Your task to perform on an android device: turn on location history Image 0: 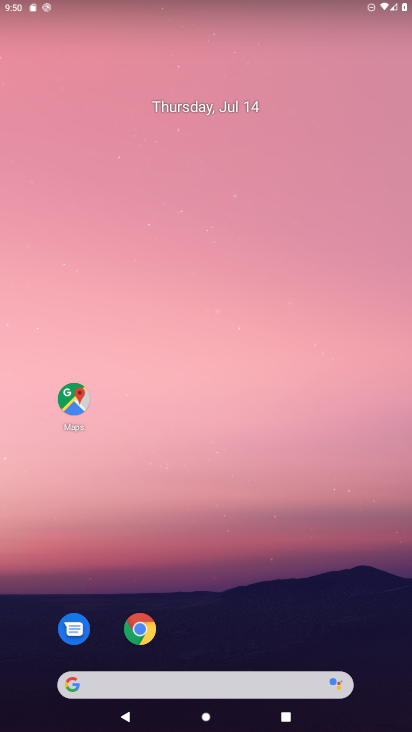
Step 0: drag from (278, 563) to (248, 131)
Your task to perform on an android device: turn on location history Image 1: 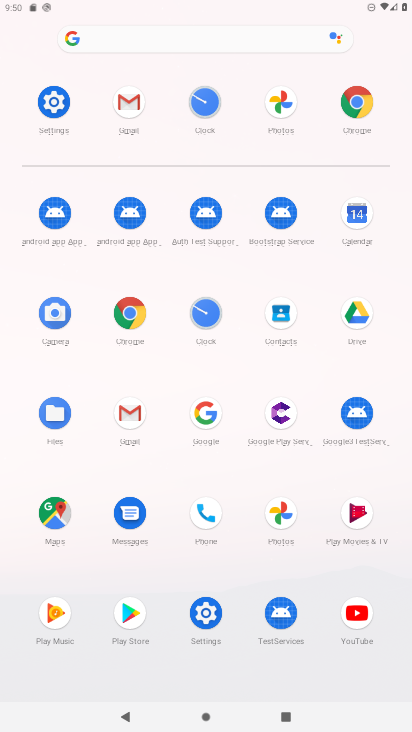
Step 1: click (209, 606)
Your task to perform on an android device: turn on location history Image 2: 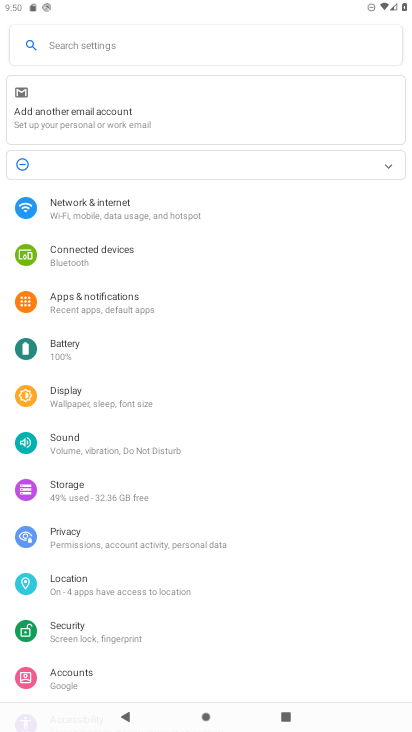
Step 2: drag from (256, 604) to (252, 264)
Your task to perform on an android device: turn on location history Image 3: 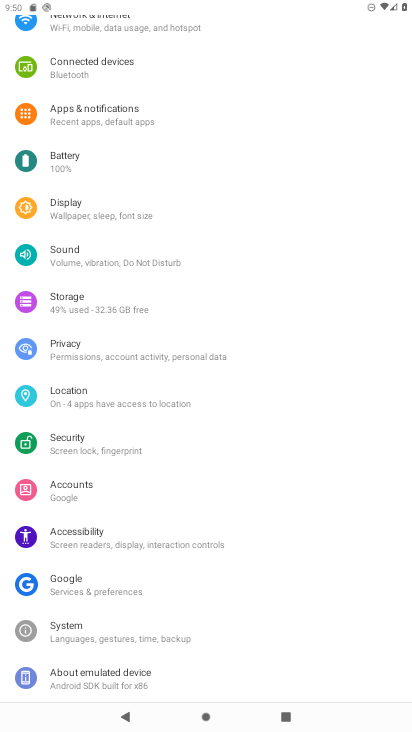
Step 3: press home button
Your task to perform on an android device: turn on location history Image 4: 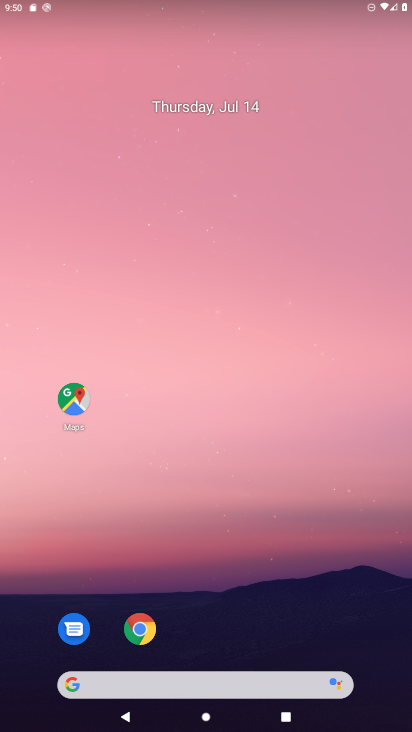
Step 4: drag from (278, 632) to (285, 68)
Your task to perform on an android device: turn on location history Image 5: 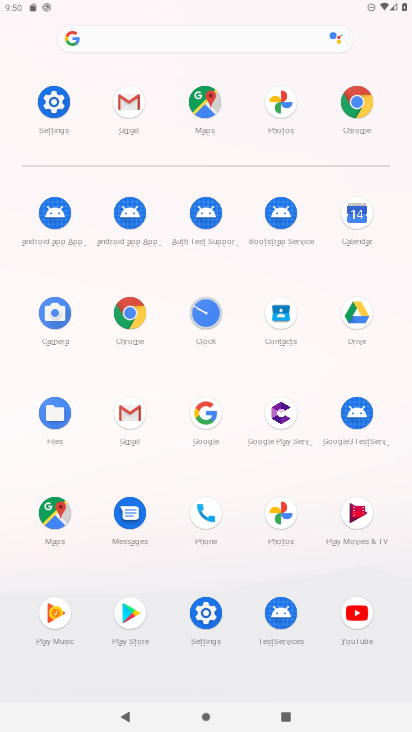
Step 5: click (61, 507)
Your task to perform on an android device: turn on location history Image 6: 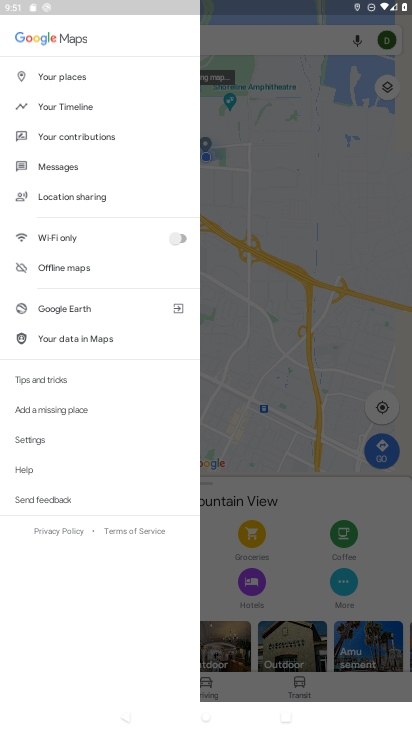
Step 6: click (50, 103)
Your task to perform on an android device: turn on location history Image 7: 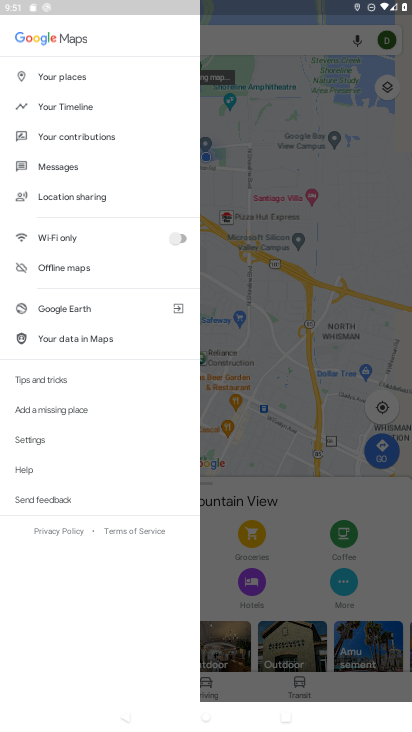
Step 7: click (86, 107)
Your task to perform on an android device: turn on location history Image 8: 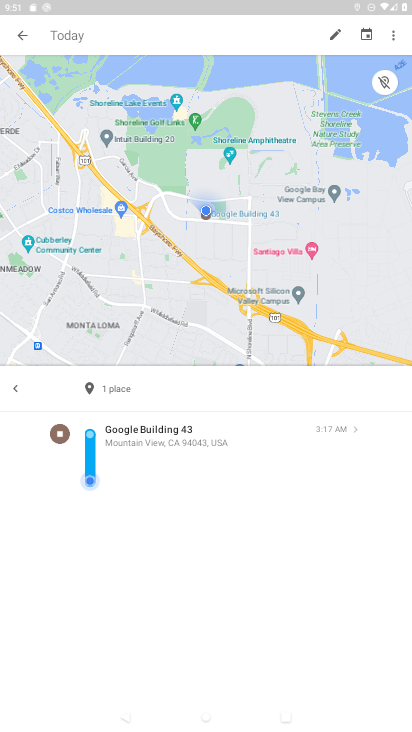
Step 8: click (390, 34)
Your task to perform on an android device: turn on location history Image 9: 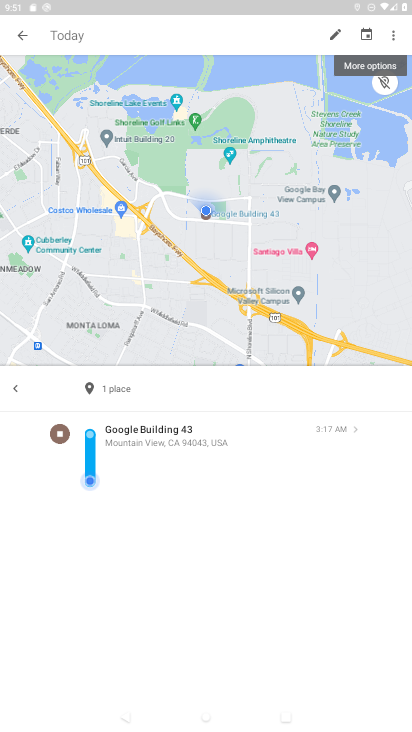
Step 9: click (390, 34)
Your task to perform on an android device: turn on location history Image 10: 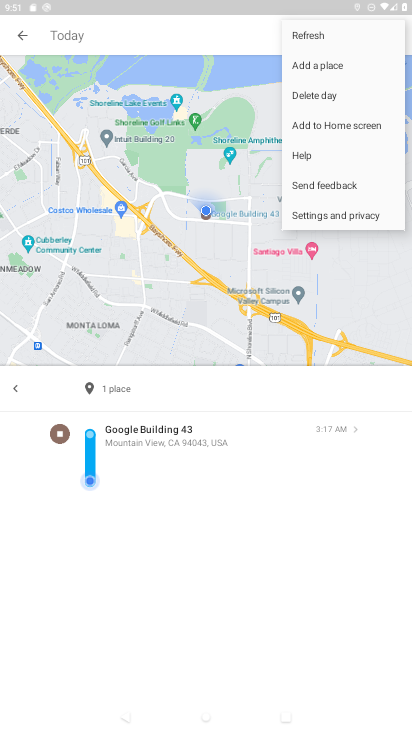
Step 10: click (324, 210)
Your task to perform on an android device: turn on location history Image 11: 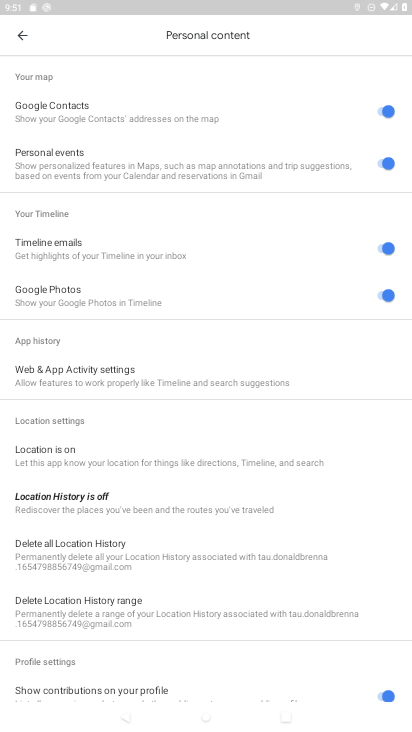
Step 11: click (97, 499)
Your task to perform on an android device: turn on location history Image 12: 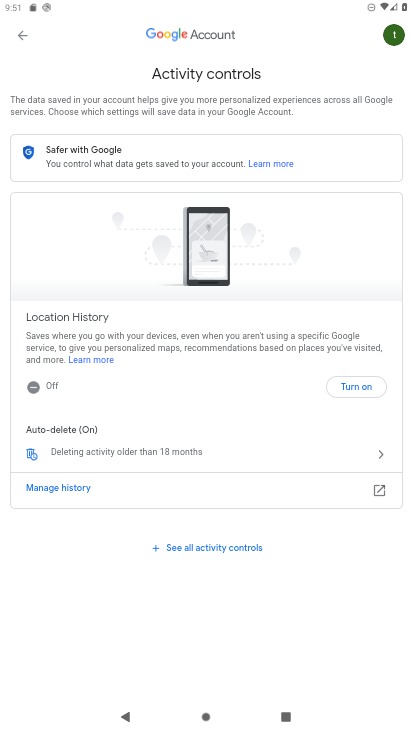
Step 12: click (354, 382)
Your task to perform on an android device: turn on location history Image 13: 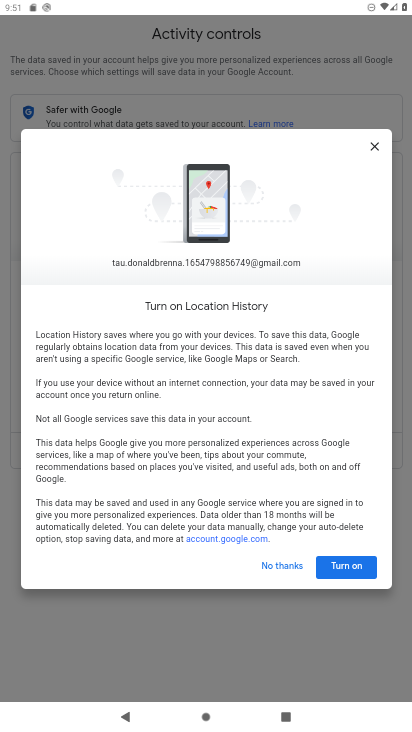
Step 13: click (365, 560)
Your task to perform on an android device: turn on location history Image 14: 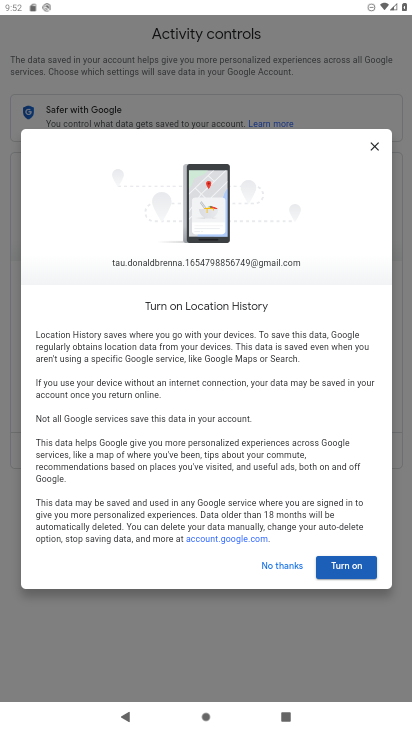
Step 14: click (365, 560)
Your task to perform on an android device: turn on location history Image 15: 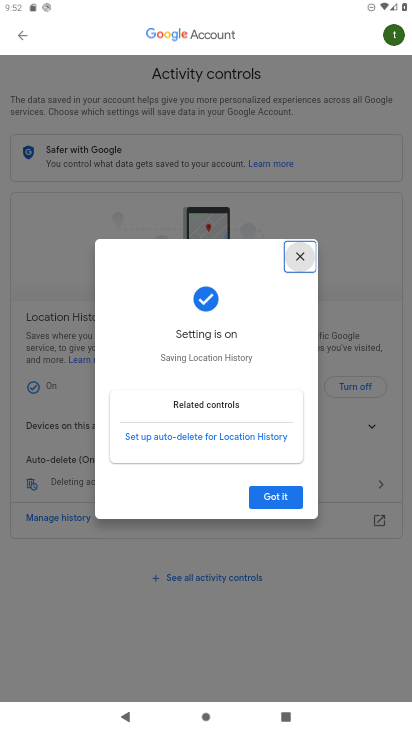
Step 15: click (288, 493)
Your task to perform on an android device: turn on location history Image 16: 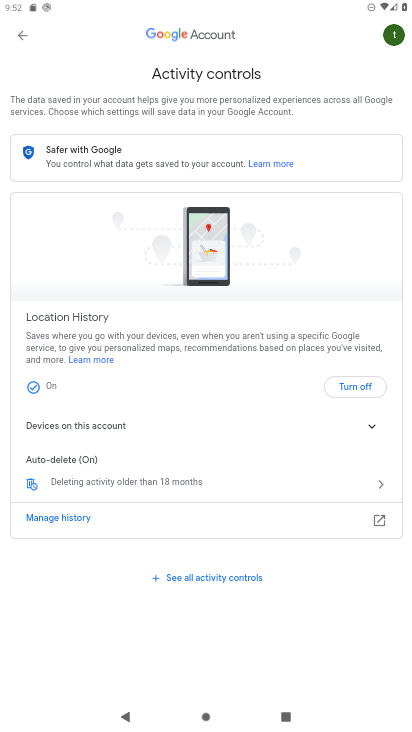
Step 16: task complete